Your task to perform on an android device: star an email in the gmail app Image 0: 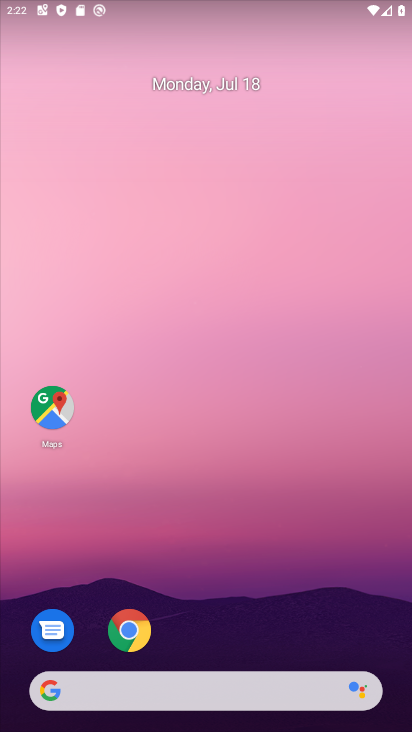
Step 0: drag from (384, 633) to (220, 26)
Your task to perform on an android device: star an email in the gmail app Image 1: 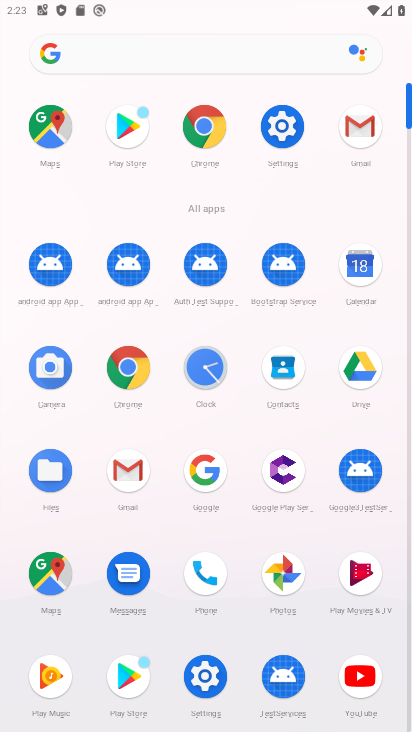
Step 1: click (130, 471)
Your task to perform on an android device: star an email in the gmail app Image 2: 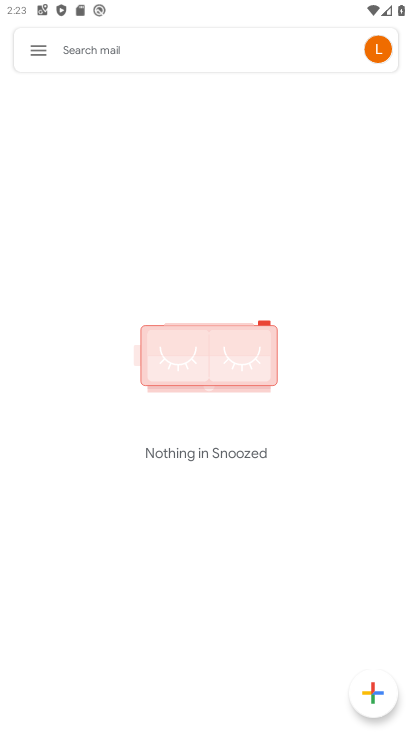
Step 2: click (32, 56)
Your task to perform on an android device: star an email in the gmail app Image 3: 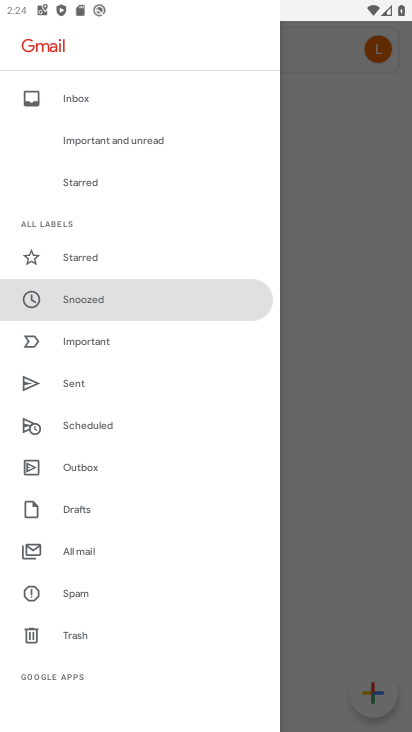
Step 3: task complete